Your task to perform on an android device: visit the assistant section in the google photos Image 0: 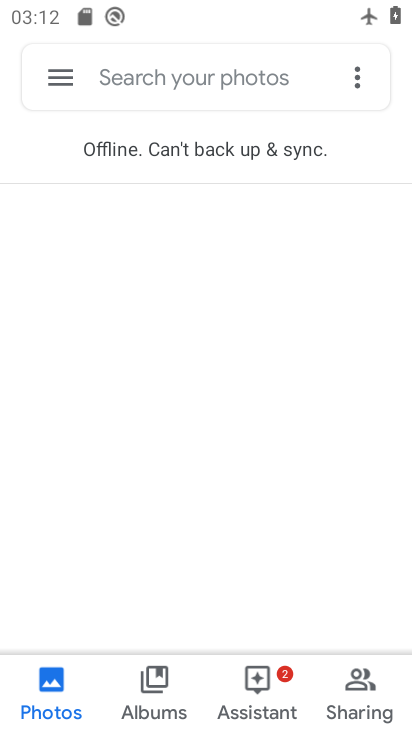
Step 0: press home button
Your task to perform on an android device: visit the assistant section in the google photos Image 1: 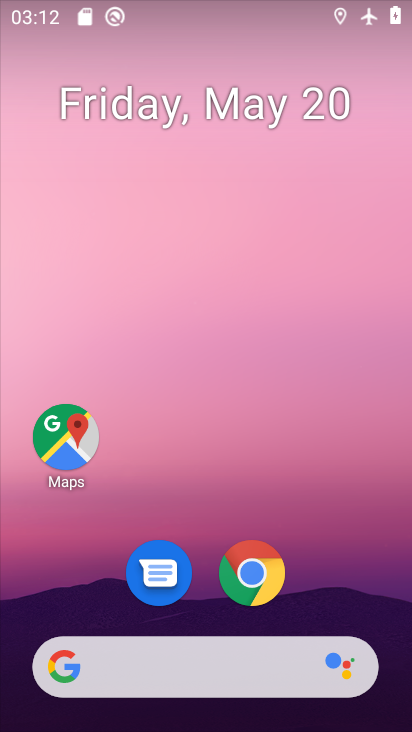
Step 1: drag from (195, 619) to (225, 235)
Your task to perform on an android device: visit the assistant section in the google photos Image 2: 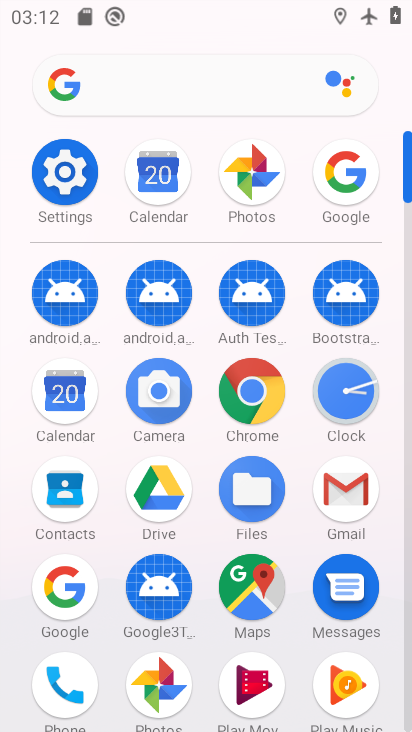
Step 2: click (260, 186)
Your task to perform on an android device: visit the assistant section in the google photos Image 3: 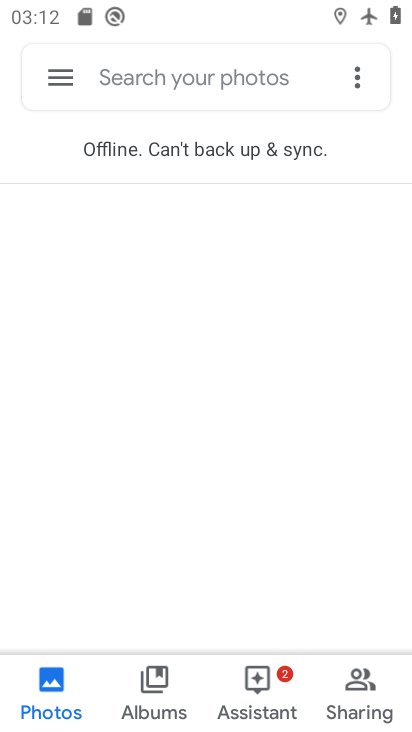
Step 3: click (266, 681)
Your task to perform on an android device: visit the assistant section in the google photos Image 4: 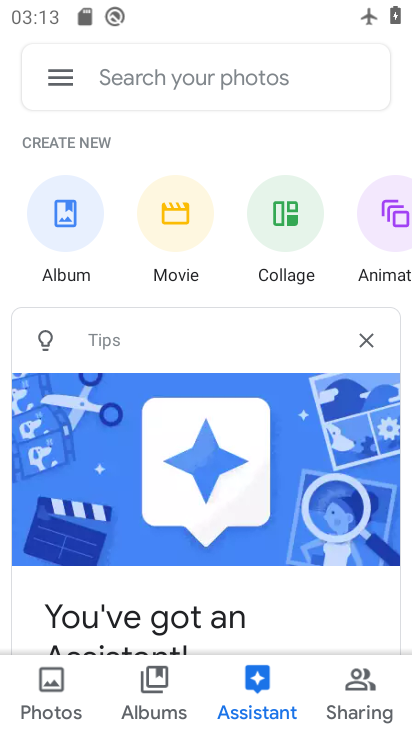
Step 4: task complete